Your task to perform on an android device: turn on translation in the chrome app Image 0: 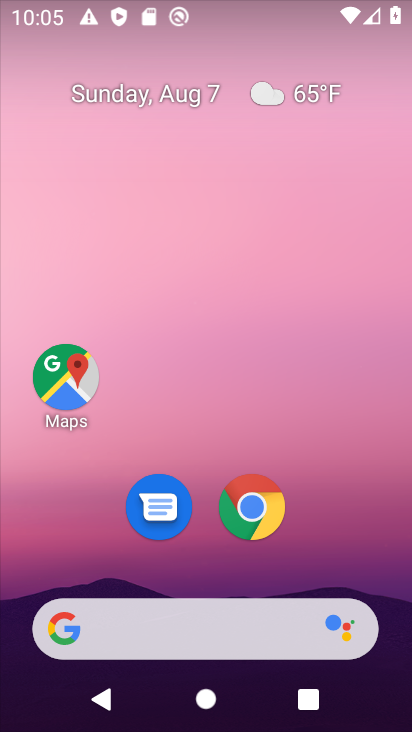
Step 0: drag from (288, 440) to (328, 8)
Your task to perform on an android device: turn on translation in the chrome app Image 1: 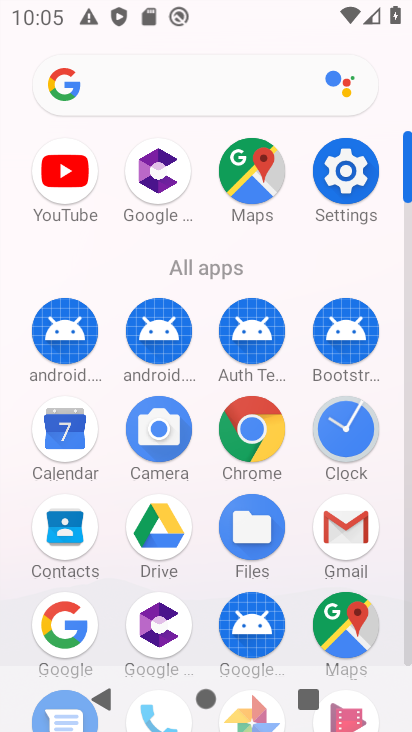
Step 1: click (332, 179)
Your task to perform on an android device: turn on translation in the chrome app Image 2: 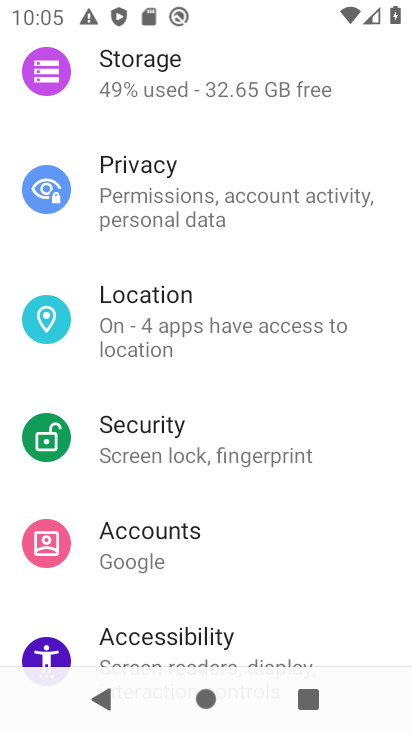
Step 2: press home button
Your task to perform on an android device: turn on translation in the chrome app Image 3: 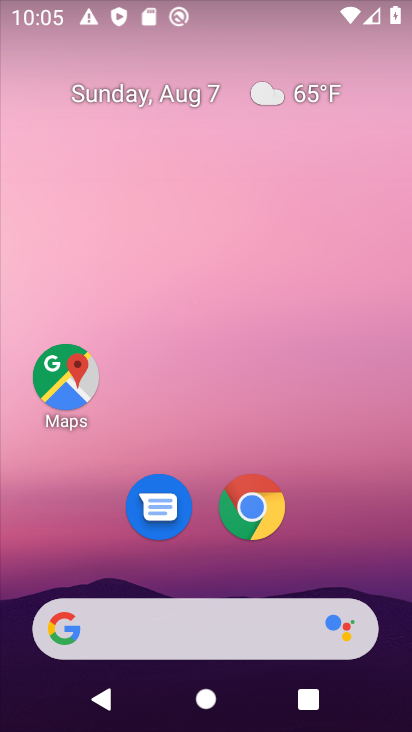
Step 3: click (274, 514)
Your task to perform on an android device: turn on translation in the chrome app Image 4: 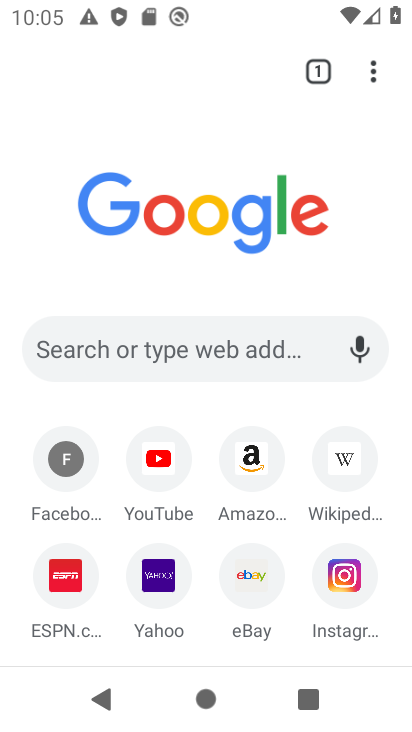
Step 4: click (379, 62)
Your task to perform on an android device: turn on translation in the chrome app Image 5: 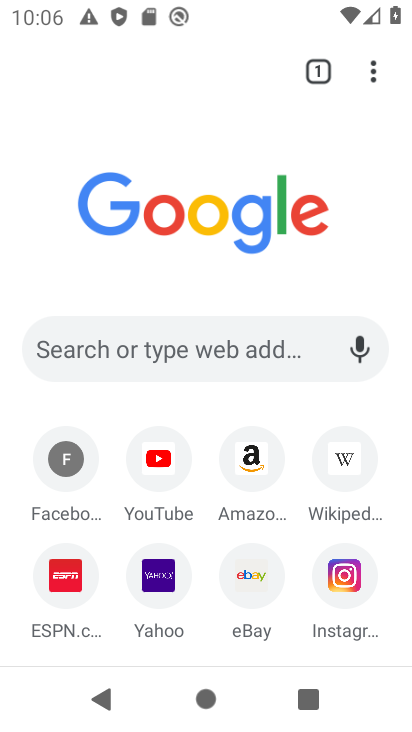
Step 5: click (375, 74)
Your task to perform on an android device: turn on translation in the chrome app Image 6: 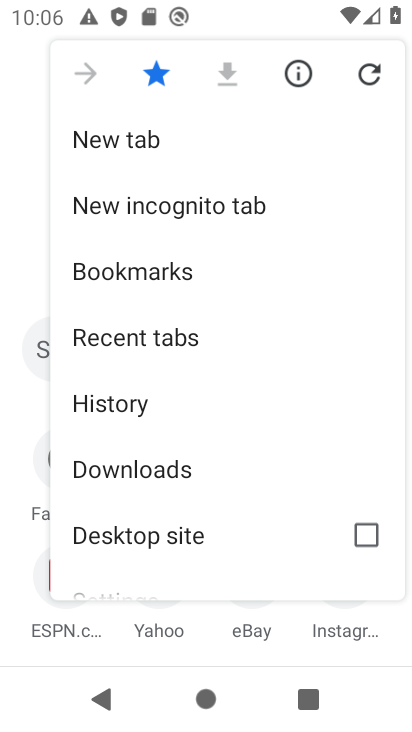
Step 6: task complete